Your task to perform on an android device: open wifi settings Image 0: 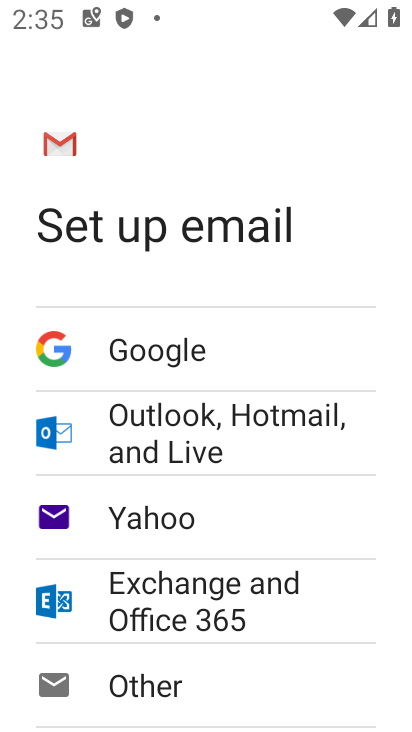
Step 0: press home button
Your task to perform on an android device: open wifi settings Image 1: 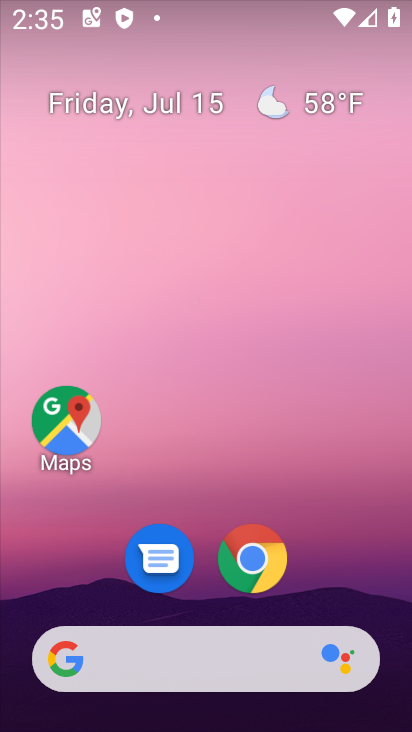
Step 1: drag from (373, 562) to (374, 80)
Your task to perform on an android device: open wifi settings Image 2: 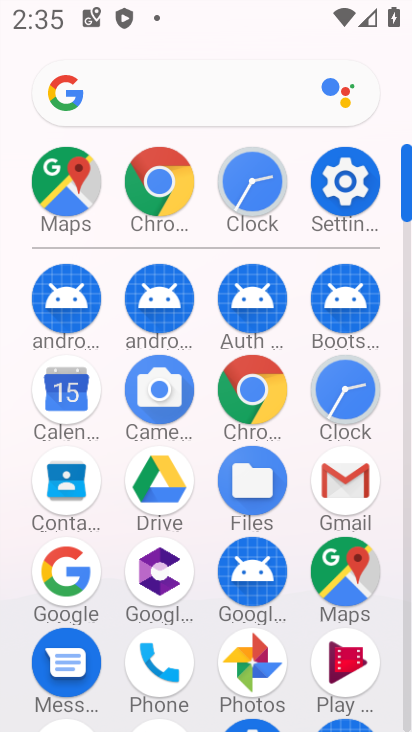
Step 2: click (345, 184)
Your task to perform on an android device: open wifi settings Image 3: 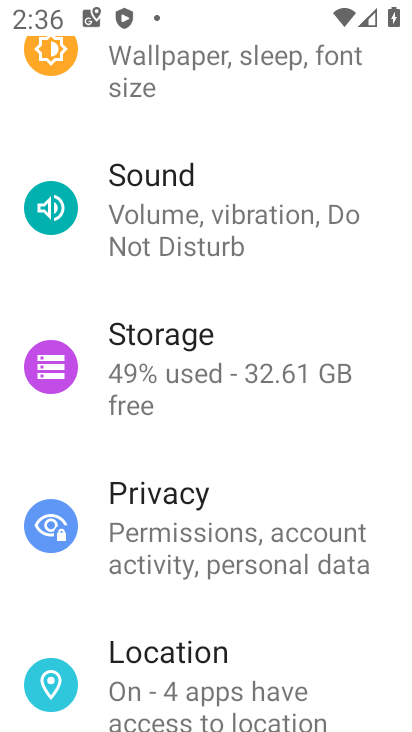
Step 3: drag from (386, 132) to (384, 220)
Your task to perform on an android device: open wifi settings Image 4: 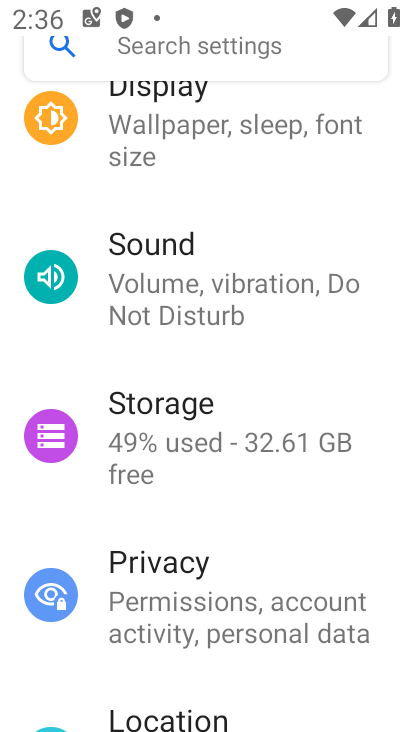
Step 4: drag from (374, 161) to (370, 237)
Your task to perform on an android device: open wifi settings Image 5: 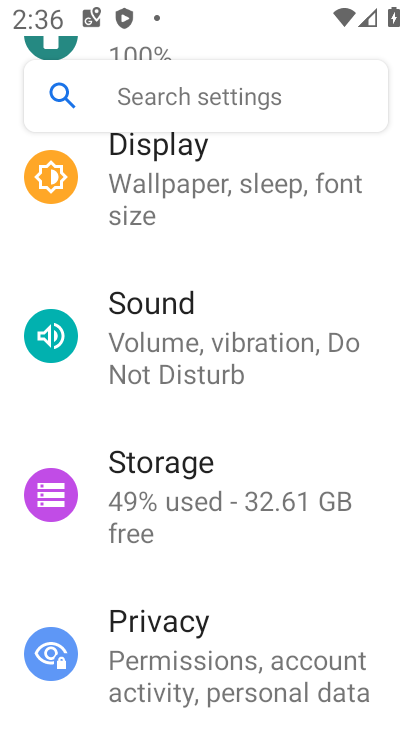
Step 5: drag from (372, 173) to (371, 243)
Your task to perform on an android device: open wifi settings Image 6: 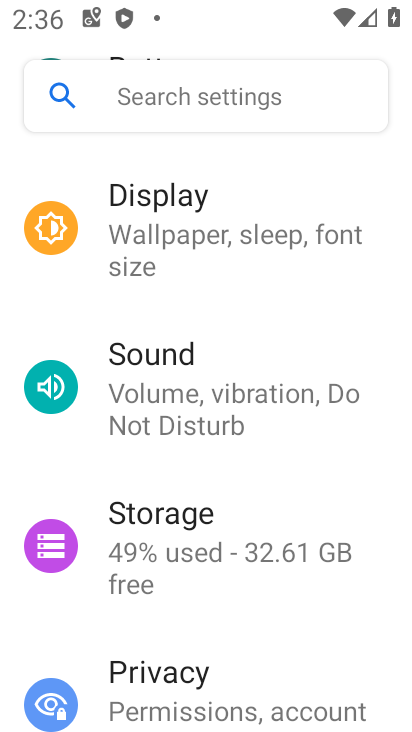
Step 6: drag from (371, 196) to (371, 241)
Your task to perform on an android device: open wifi settings Image 7: 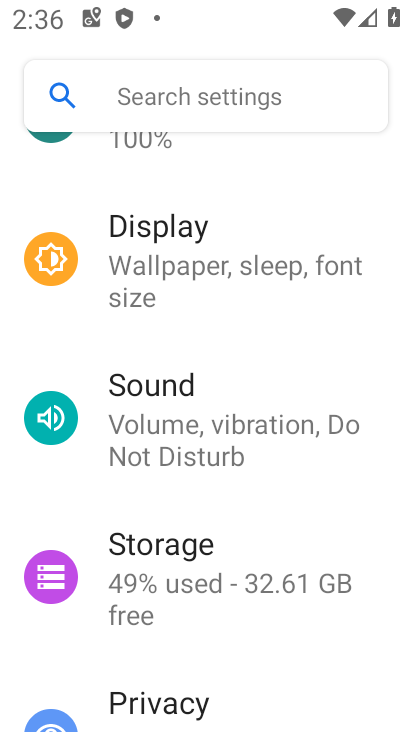
Step 7: click (371, 213)
Your task to perform on an android device: open wifi settings Image 8: 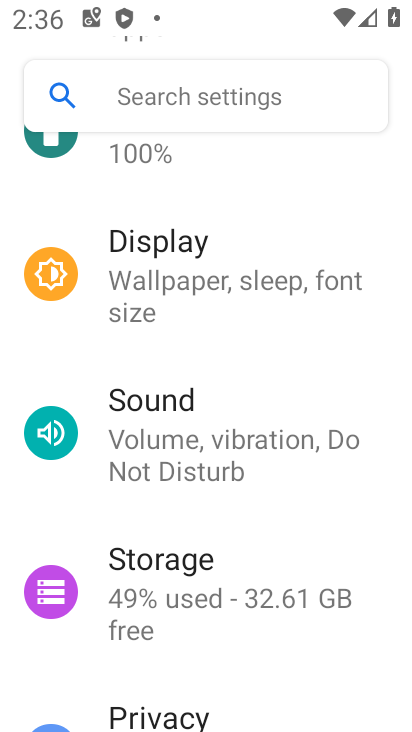
Step 8: drag from (371, 206) to (364, 331)
Your task to perform on an android device: open wifi settings Image 9: 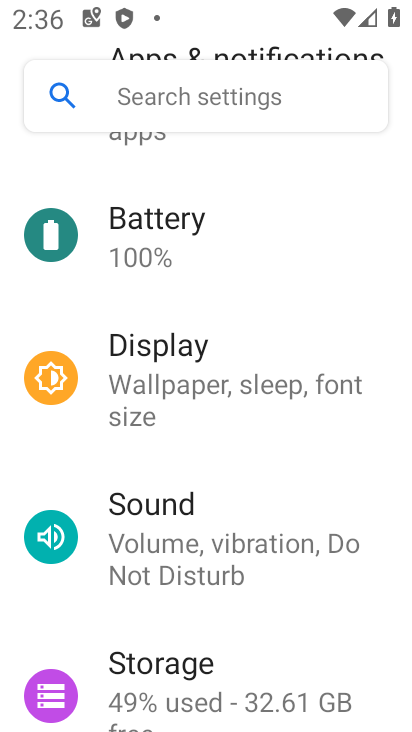
Step 9: drag from (361, 223) to (355, 310)
Your task to perform on an android device: open wifi settings Image 10: 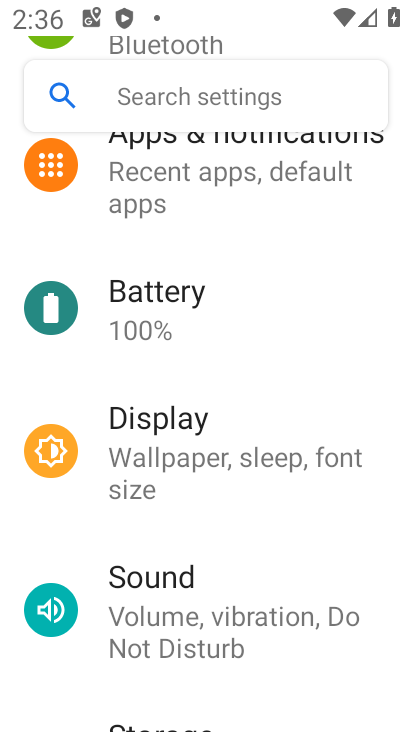
Step 10: drag from (351, 239) to (346, 303)
Your task to perform on an android device: open wifi settings Image 11: 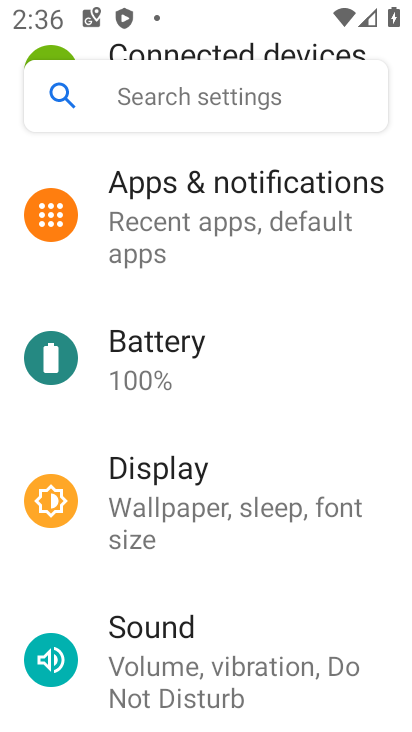
Step 11: drag from (354, 229) to (339, 432)
Your task to perform on an android device: open wifi settings Image 12: 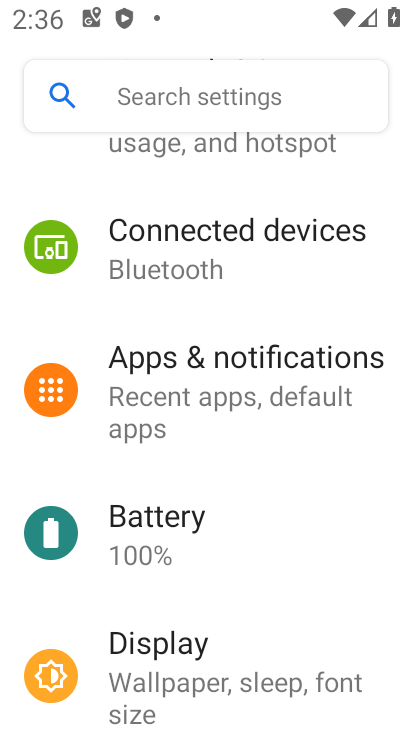
Step 12: drag from (363, 186) to (362, 350)
Your task to perform on an android device: open wifi settings Image 13: 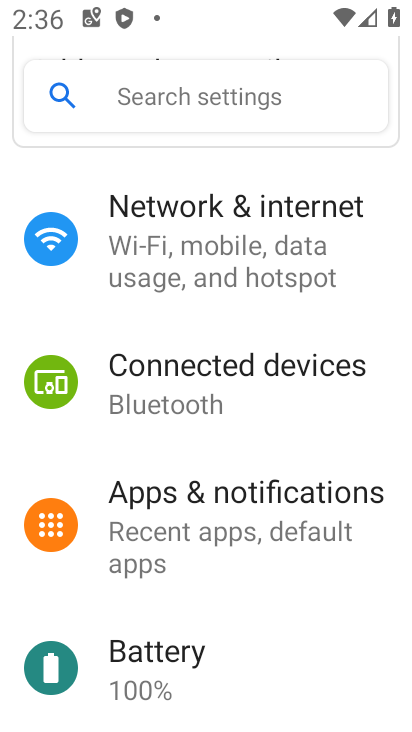
Step 13: click (292, 250)
Your task to perform on an android device: open wifi settings Image 14: 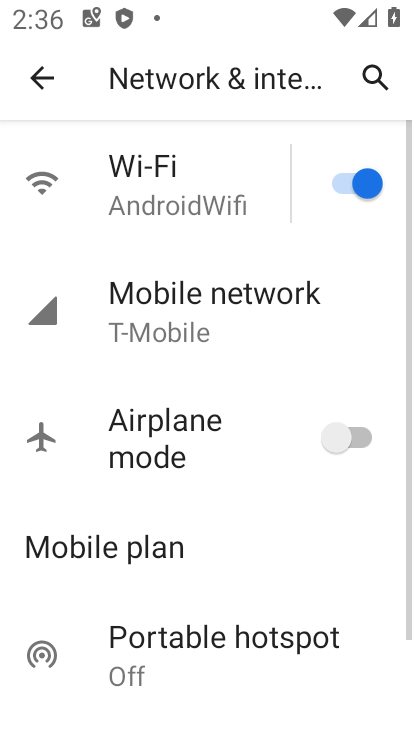
Step 14: click (188, 185)
Your task to perform on an android device: open wifi settings Image 15: 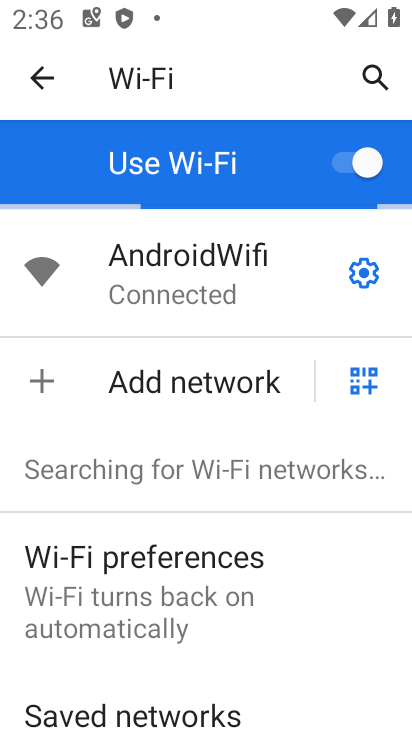
Step 15: task complete